Your task to perform on an android device: delete a single message in the gmail app Image 0: 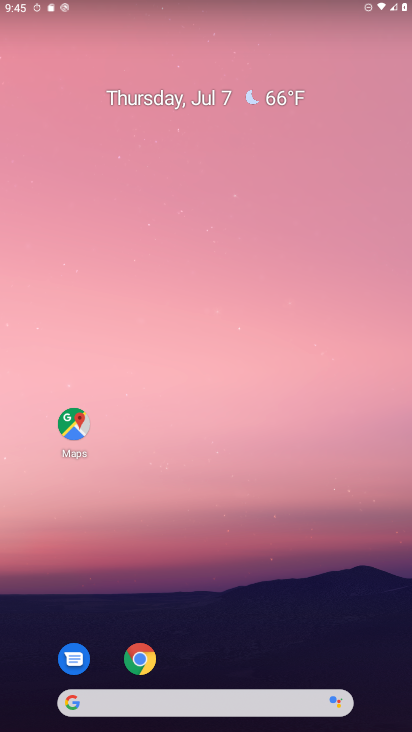
Step 0: drag from (375, 683) to (277, 3)
Your task to perform on an android device: delete a single message in the gmail app Image 1: 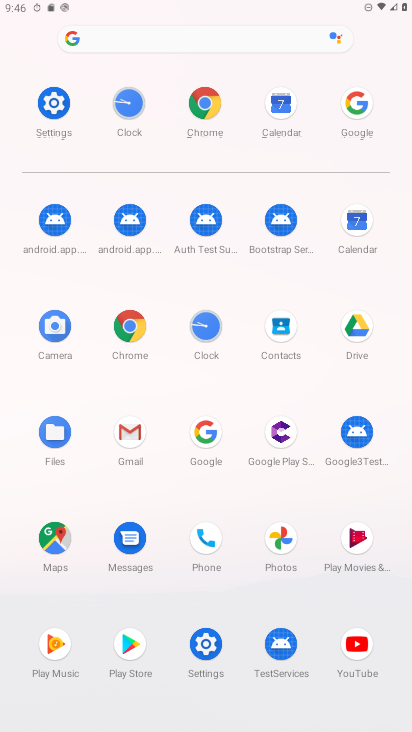
Step 1: click (126, 439)
Your task to perform on an android device: delete a single message in the gmail app Image 2: 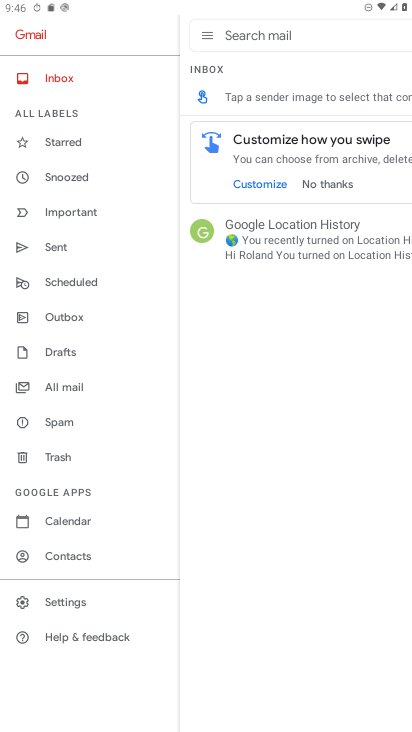
Step 2: click (287, 235)
Your task to perform on an android device: delete a single message in the gmail app Image 3: 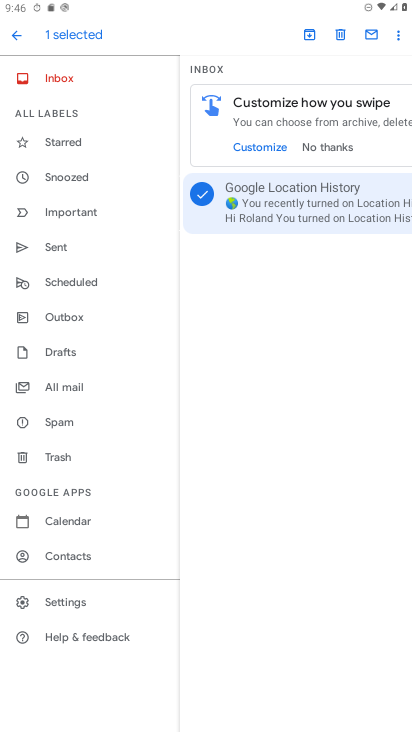
Step 3: click (336, 37)
Your task to perform on an android device: delete a single message in the gmail app Image 4: 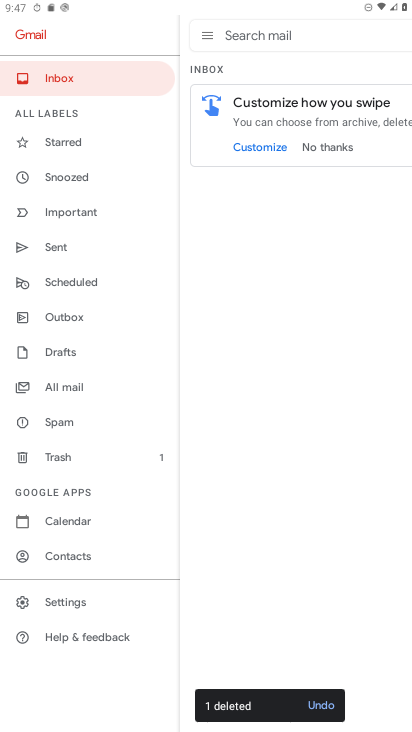
Step 4: task complete